Your task to perform on an android device: Show me popular games on the Play Store Image 0: 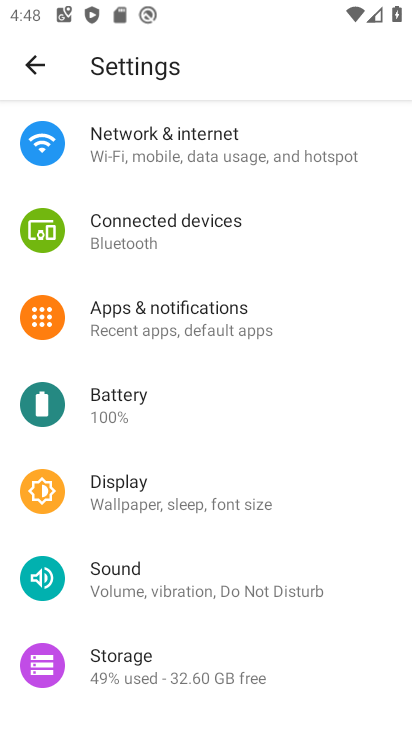
Step 0: press back button
Your task to perform on an android device: Show me popular games on the Play Store Image 1: 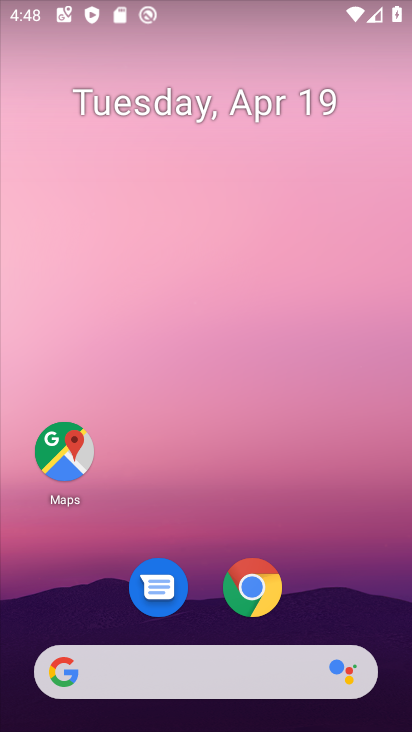
Step 1: drag from (316, 574) to (43, 149)
Your task to perform on an android device: Show me popular games on the Play Store Image 2: 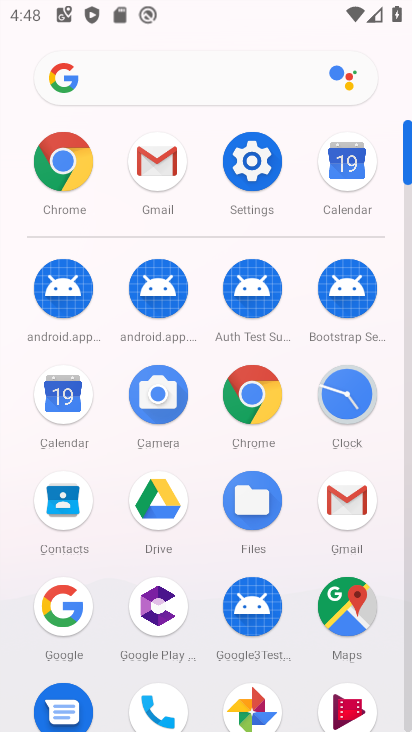
Step 2: drag from (10, 581) to (2, 308)
Your task to perform on an android device: Show me popular games on the Play Store Image 3: 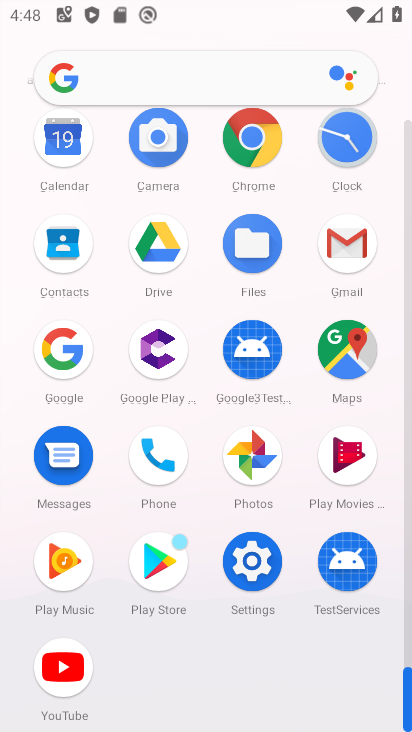
Step 3: click (163, 551)
Your task to perform on an android device: Show me popular games on the Play Store Image 4: 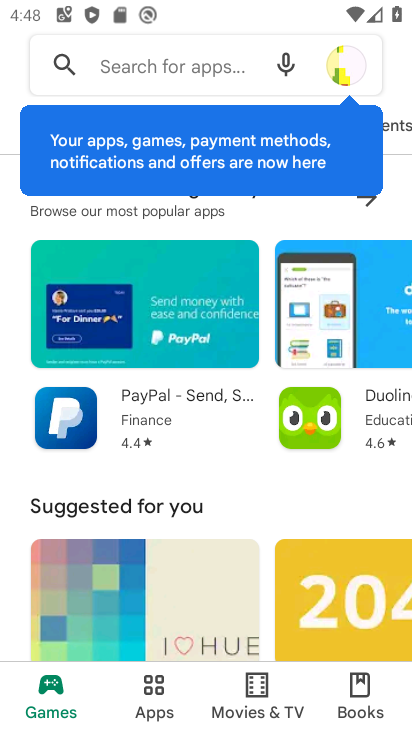
Step 4: task complete